Your task to perform on an android device: delete location history Image 0: 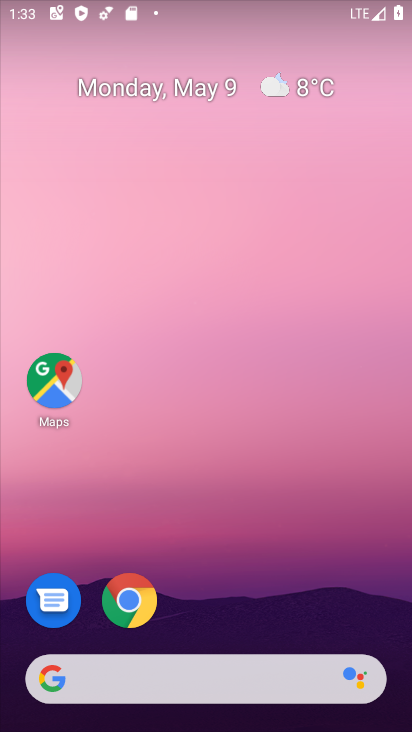
Step 0: drag from (215, 627) to (223, 166)
Your task to perform on an android device: delete location history Image 1: 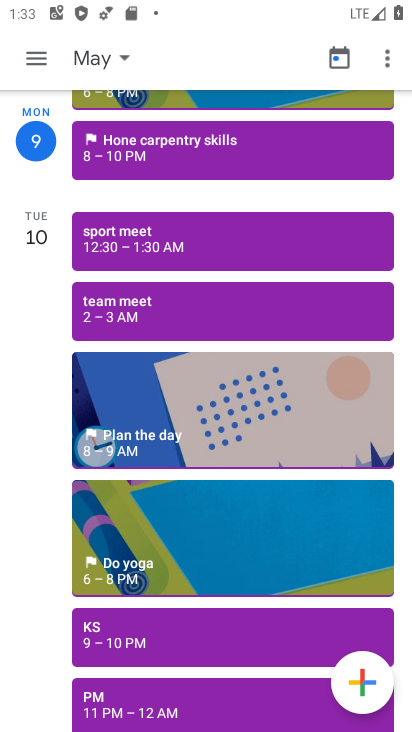
Step 1: press home button
Your task to perform on an android device: delete location history Image 2: 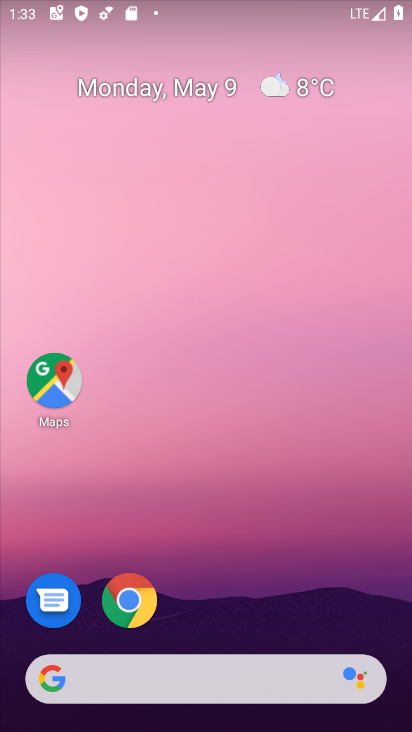
Step 2: drag from (282, 205) to (298, 45)
Your task to perform on an android device: delete location history Image 3: 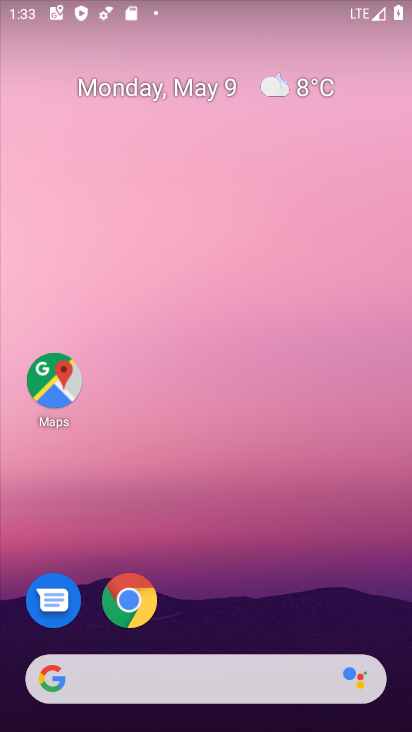
Step 3: click (56, 381)
Your task to perform on an android device: delete location history Image 4: 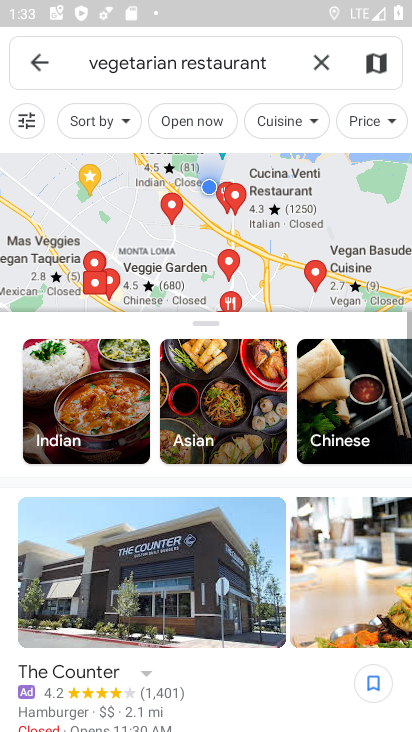
Step 4: click (44, 68)
Your task to perform on an android device: delete location history Image 5: 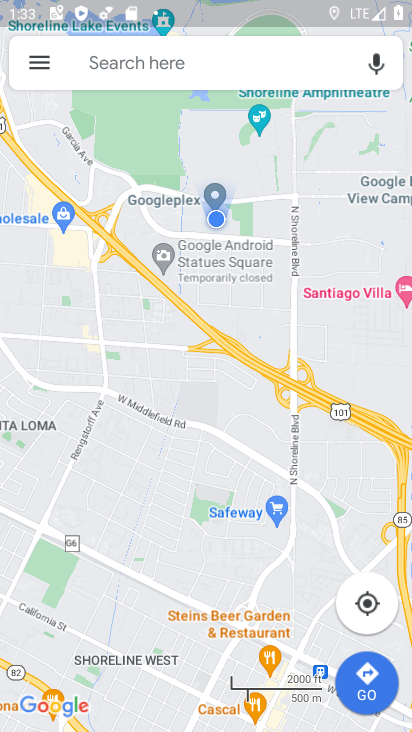
Step 5: click (44, 60)
Your task to perform on an android device: delete location history Image 6: 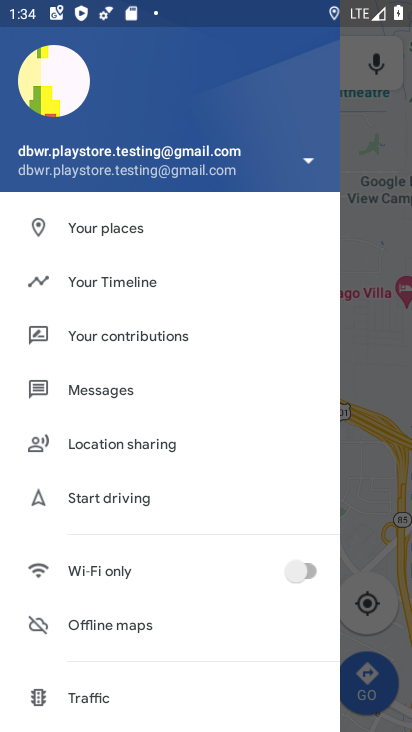
Step 6: click (85, 287)
Your task to perform on an android device: delete location history Image 7: 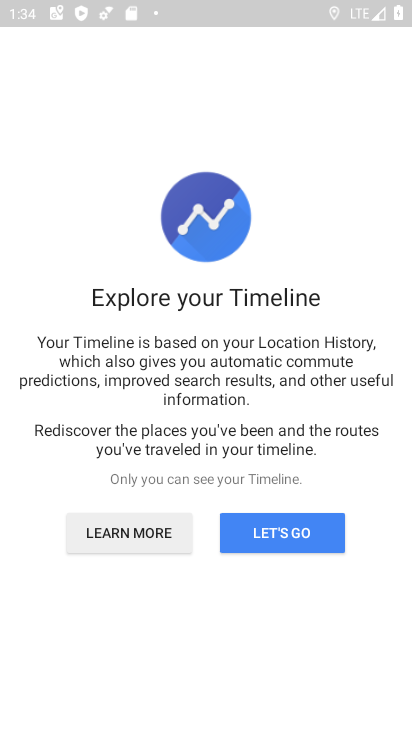
Step 7: click (264, 536)
Your task to perform on an android device: delete location history Image 8: 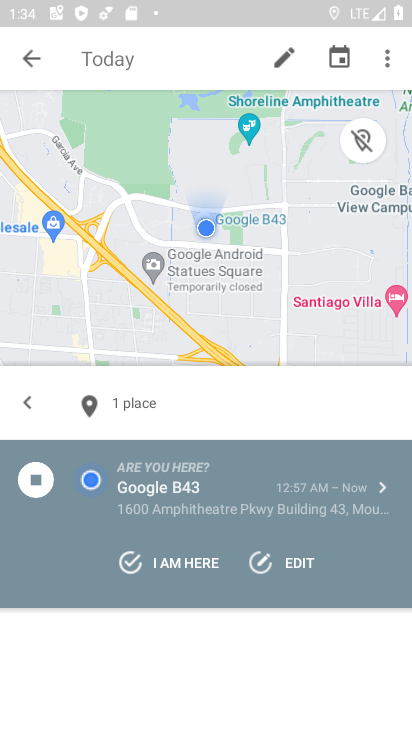
Step 8: click (388, 62)
Your task to perform on an android device: delete location history Image 9: 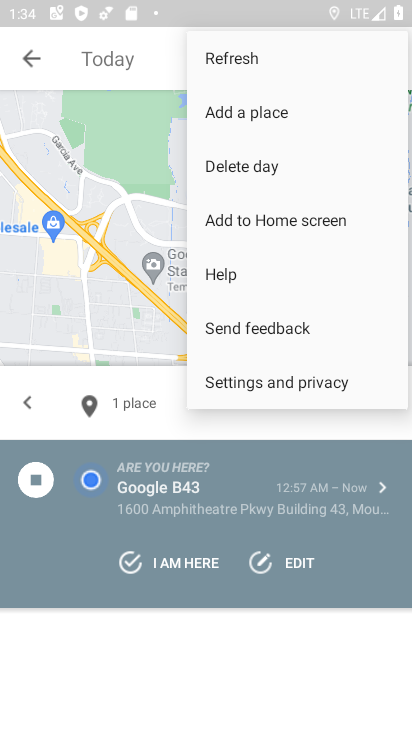
Step 9: click (249, 398)
Your task to perform on an android device: delete location history Image 10: 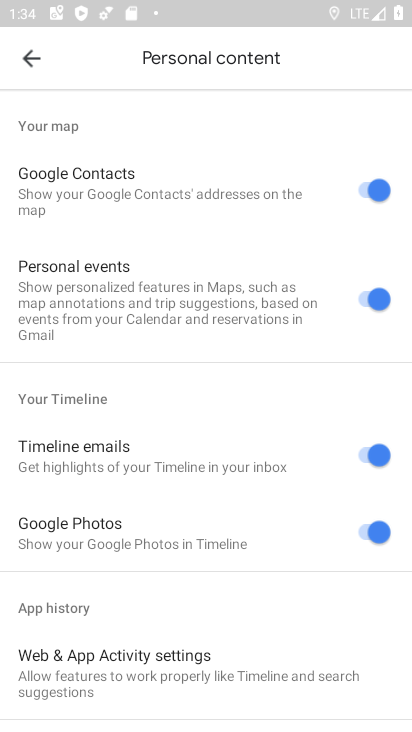
Step 10: drag from (89, 687) to (139, 179)
Your task to perform on an android device: delete location history Image 11: 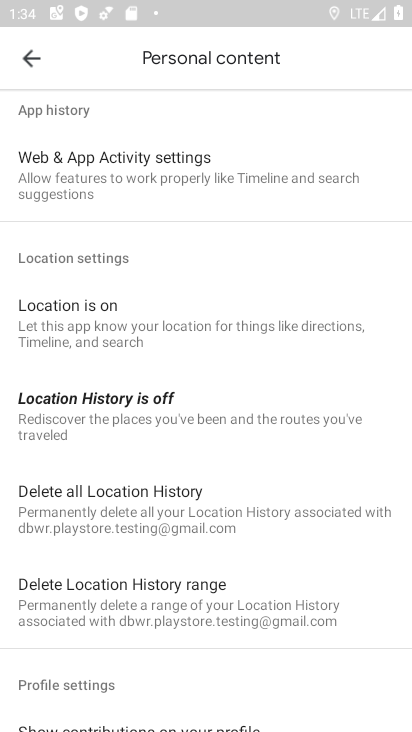
Step 11: click (163, 600)
Your task to perform on an android device: delete location history Image 12: 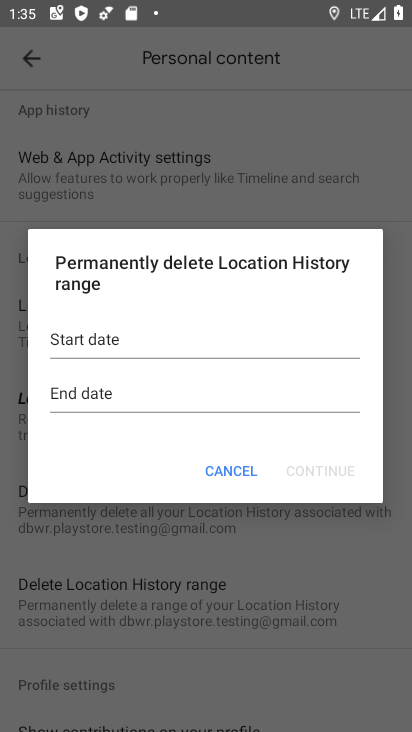
Step 12: click (219, 466)
Your task to perform on an android device: delete location history Image 13: 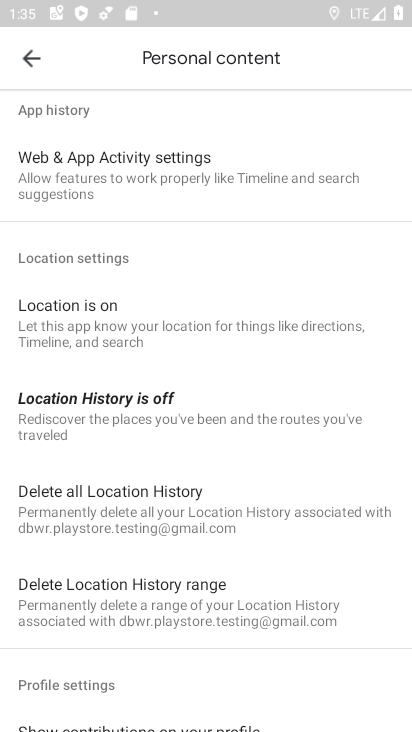
Step 13: click (130, 516)
Your task to perform on an android device: delete location history Image 14: 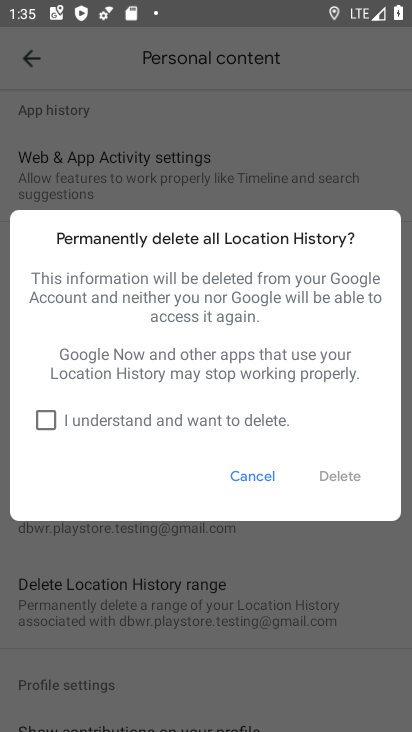
Step 14: click (41, 411)
Your task to perform on an android device: delete location history Image 15: 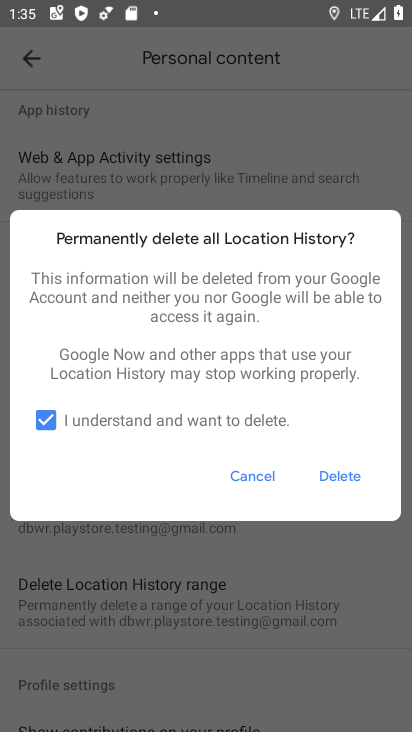
Step 15: click (351, 474)
Your task to perform on an android device: delete location history Image 16: 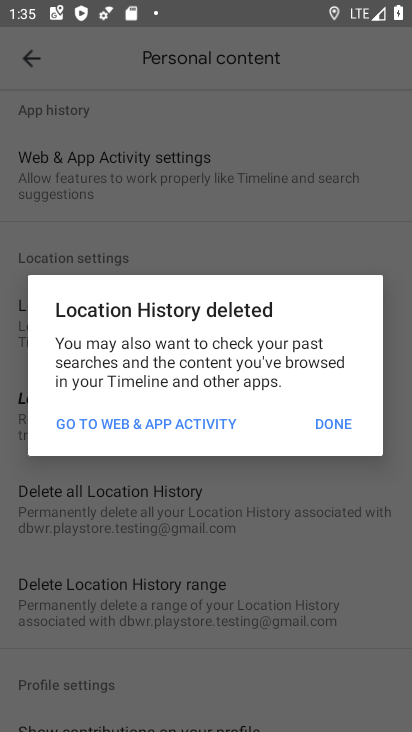
Step 16: click (325, 418)
Your task to perform on an android device: delete location history Image 17: 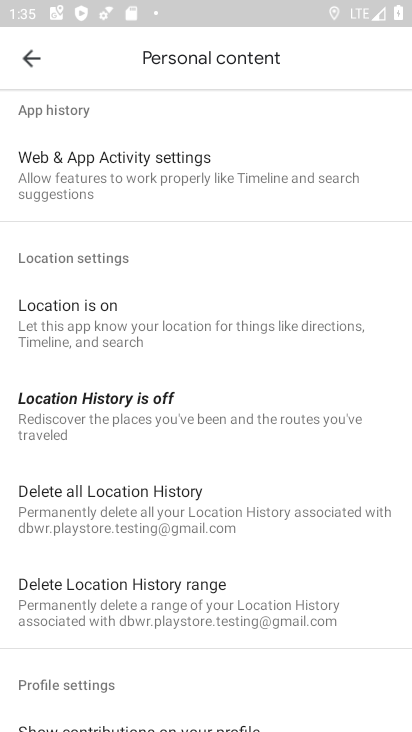
Step 17: task complete